Your task to perform on an android device: Show the shopping cart on ebay.com. Add macbook air to the cart on ebay.com, then select checkout. Image 0: 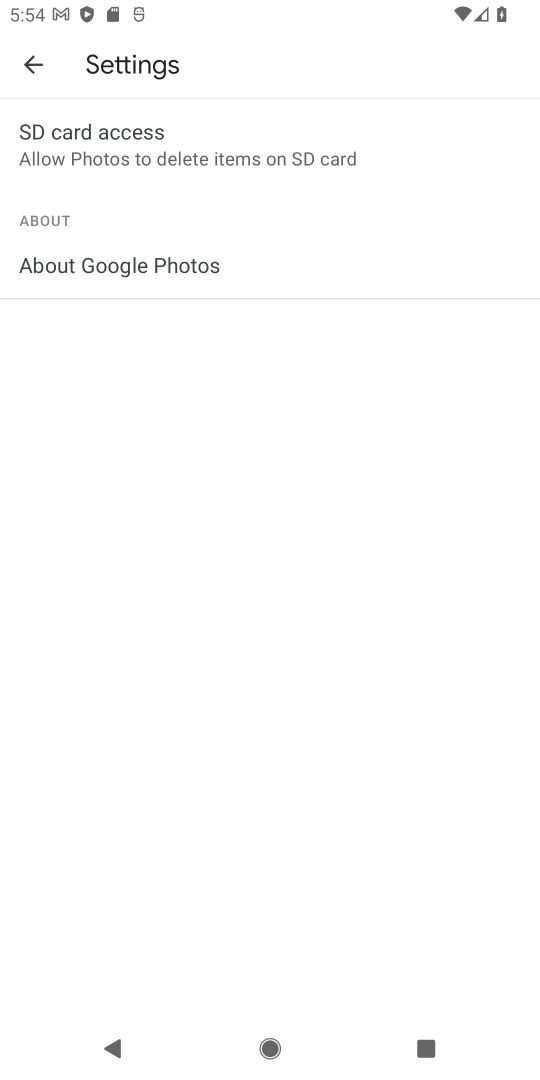
Step 0: press home button
Your task to perform on an android device: Show the shopping cart on ebay.com. Add macbook air to the cart on ebay.com, then select checkout. Image 1: 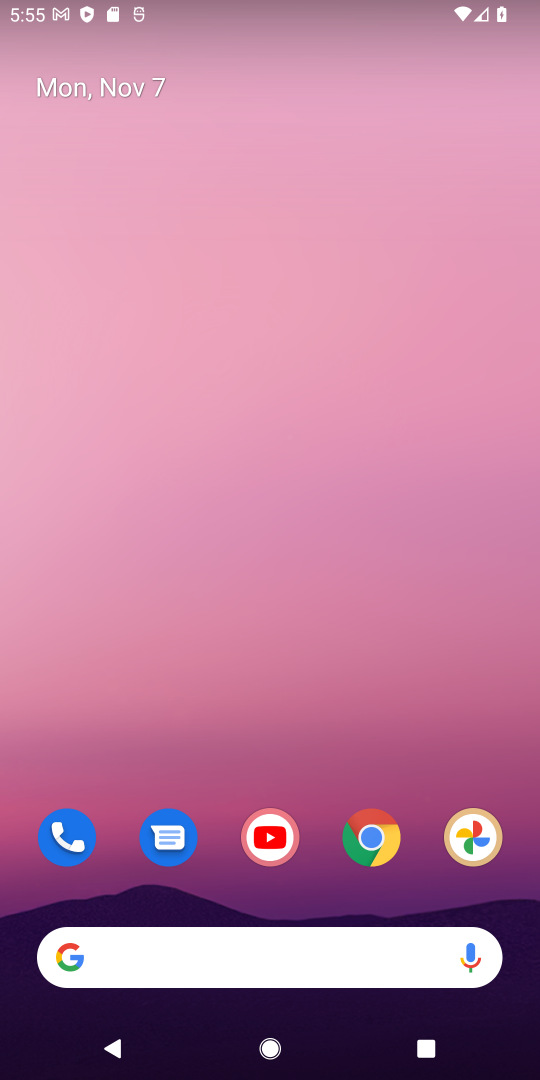
Step 1: click (383, 831)
Your task to perform on an android device: Show the shopping cart on ebay.com. Add macbook air to the cart on ebay.com, then select checkout. Image 2: 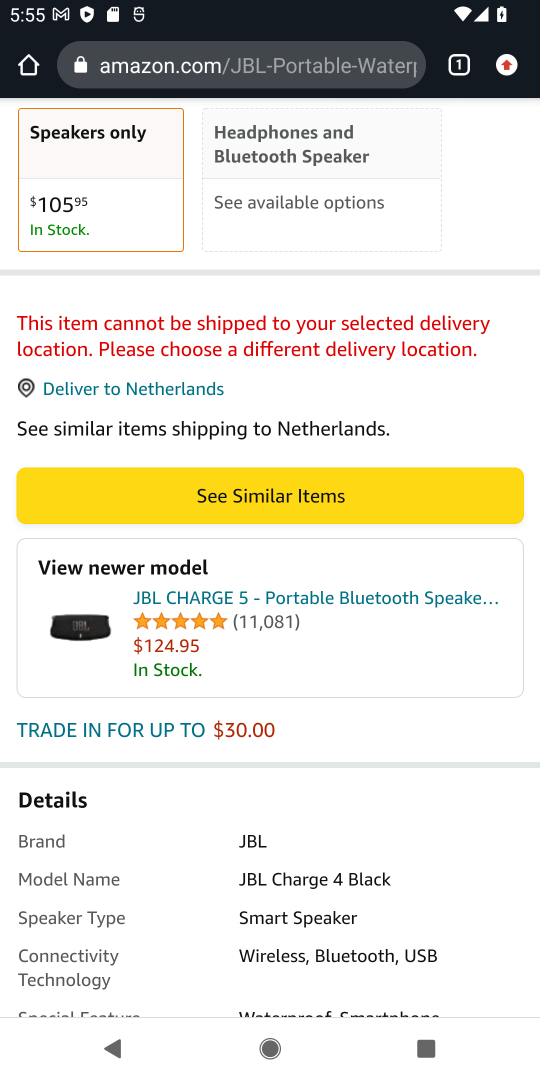
Step 2: click (193, 69)
Your task to perform on an android device: Show the shopping cart on ebay.com. Add macbook air to the cart on ebay.com, then select checkout. Image 3: 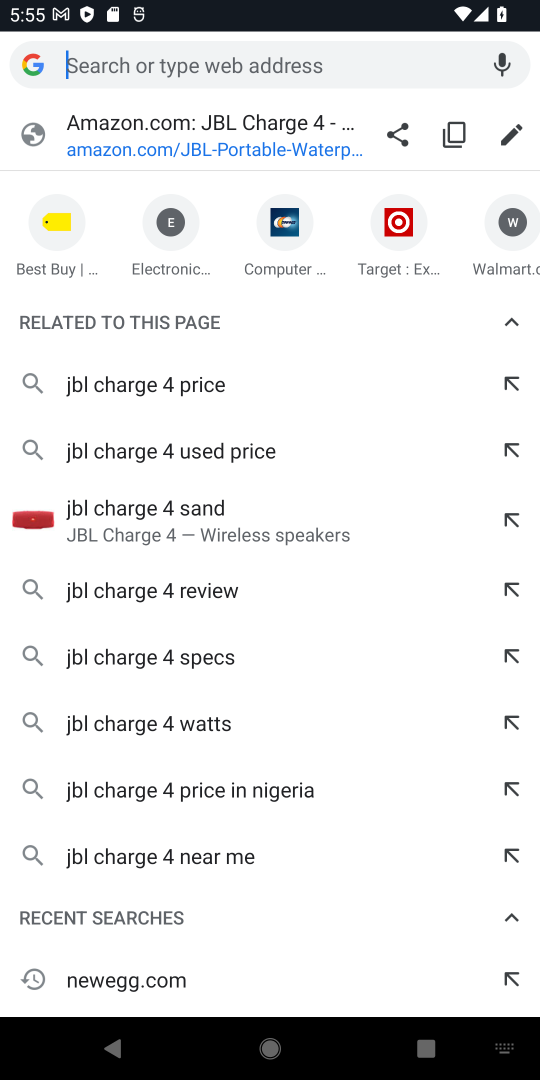
Step 3: type "ebay.com"
Your task to perform on an android device: Show the shopping cart on ebay.com. Add macbook air to the cart on ebay.com, then select checkout. Image 4: 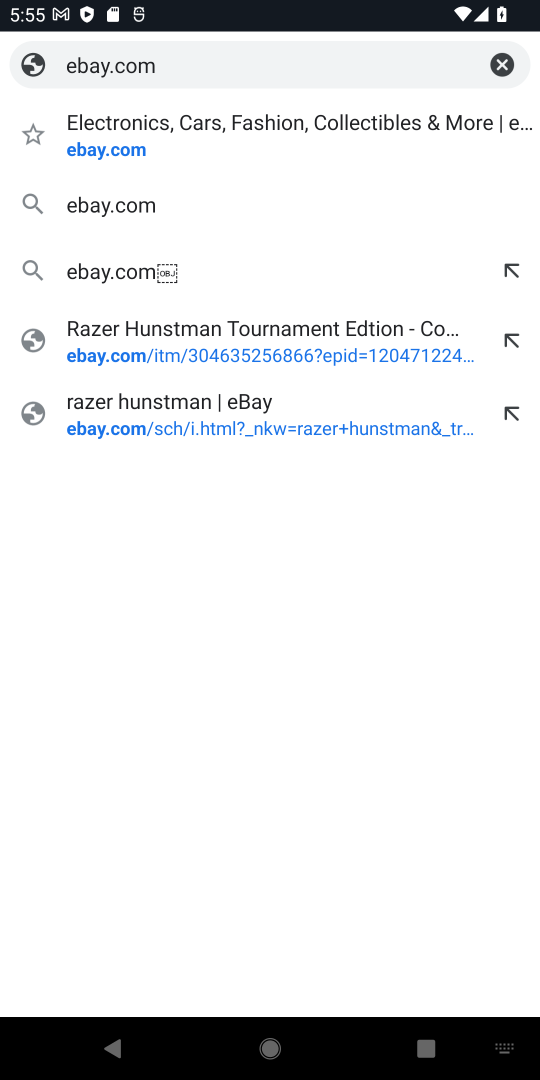
Step 4: press enter
Your task to perform on an android device: Show the shopping cart on ebay.com. Add macbook air to the cart on ebay.com, then select checkout. Image 5: 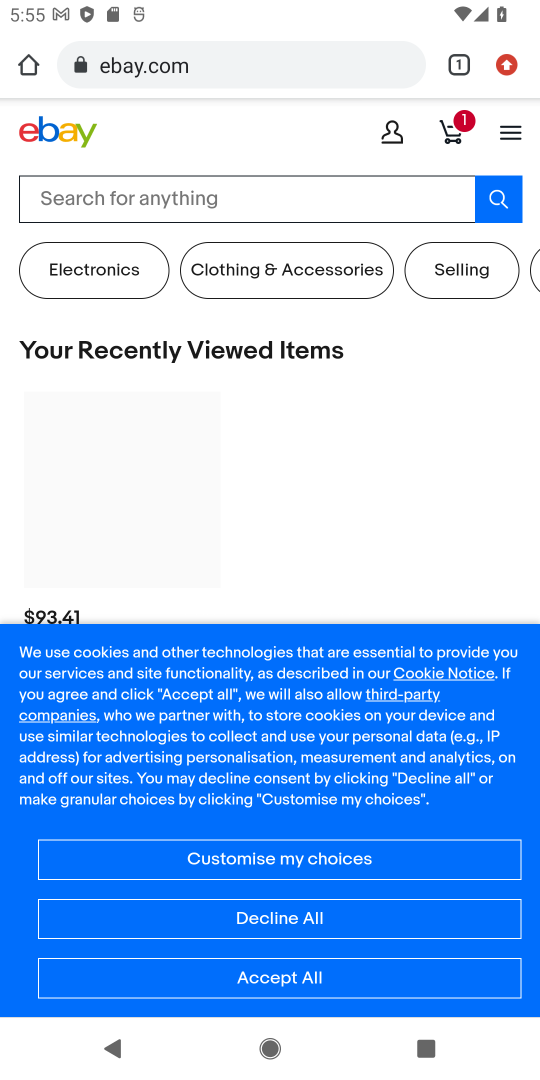
Step 5: click (459, 126)
Your task to perform on an android device: Show the shopping cart on ebay.com. Add macbook air to the cart on ebay.com, then select checkout. Image 6: 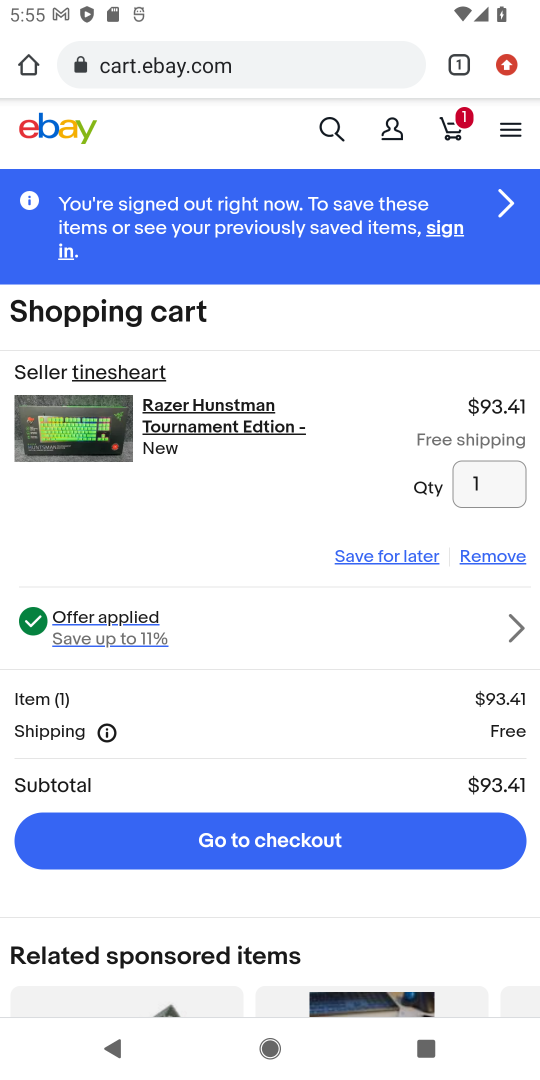
Step 6: click (329, 120)
Your task to perform on an android device: Show the shopping cart on ebay.com. Add macbook air to the cart on ebay.com, then select checkout. Image 7: 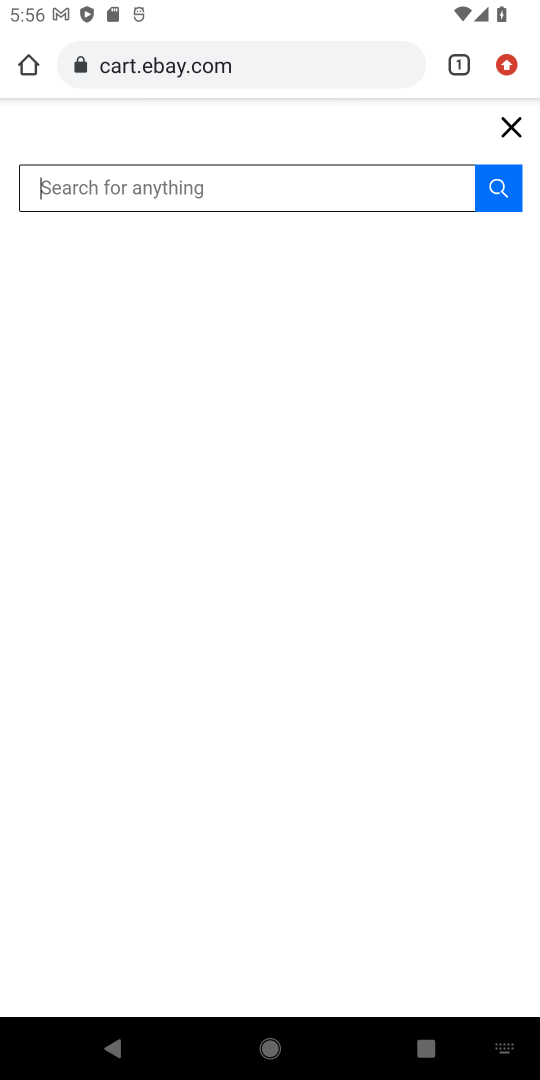
Step 7: type "macbook air"
Your task to perform on an android device: Show the shopping cart on ebay.com. Add macbook air to the cart on ebay.com, then select checkout. Image 8: 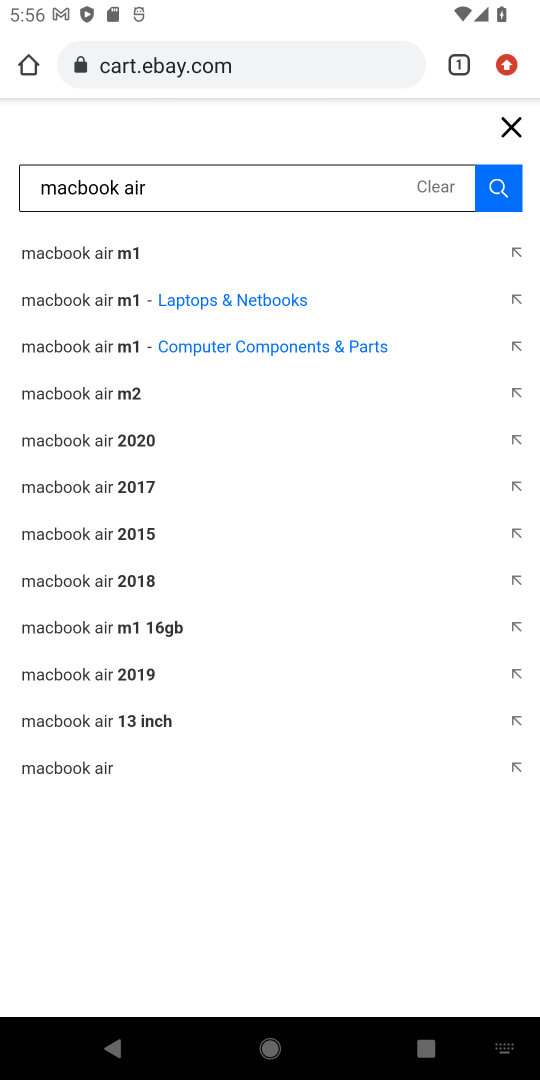
Step 8: press enter
Your task to perform on an android device: Show the shopping cart on ebay.com. Add macbook air to the cart on ebay.com, then select checkout. Image 9: 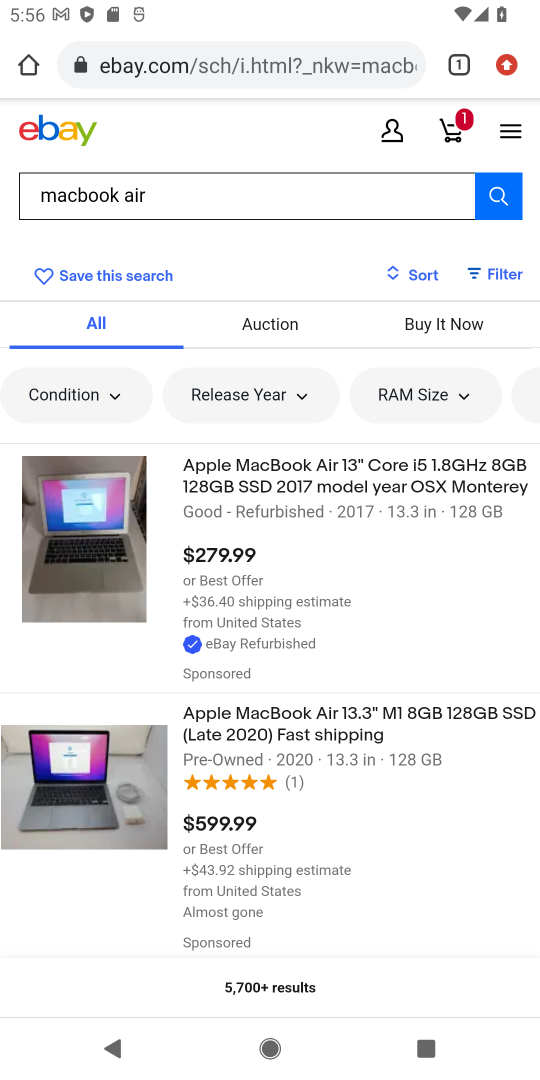
Step 9: click (333, 477)
Your task to perform on an android device: Show the shopping cart on ebay.com. Add macbook air to the cart on ebay.com, then select checkout. Image 10: 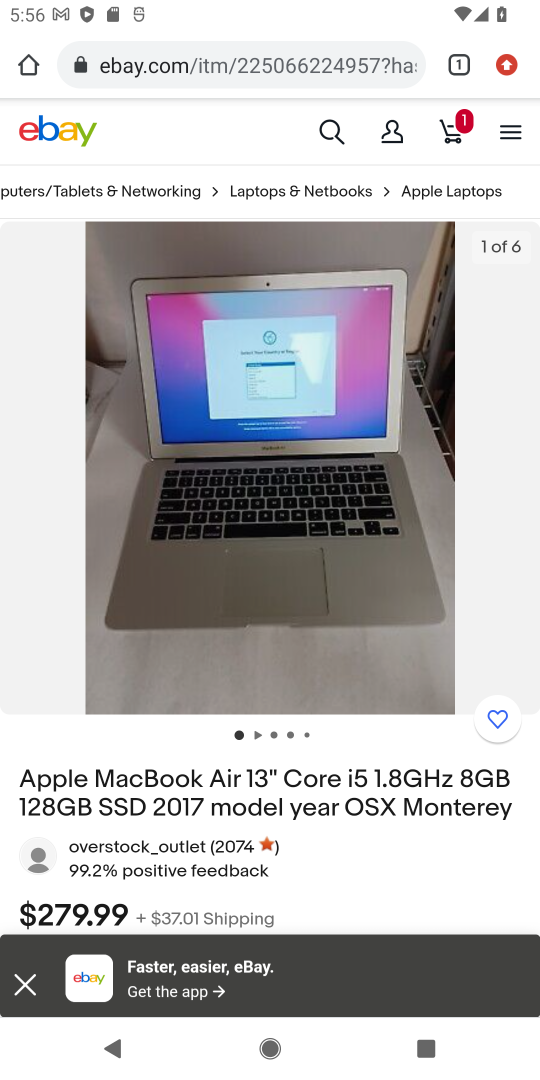
Step 10: drag from (358, 858) to (306, 274)
Your task to perform on an android device: Show the shopping cart on ebay.com. Add macbook air to the cart on ebay.com, then select checkout. Image 11: 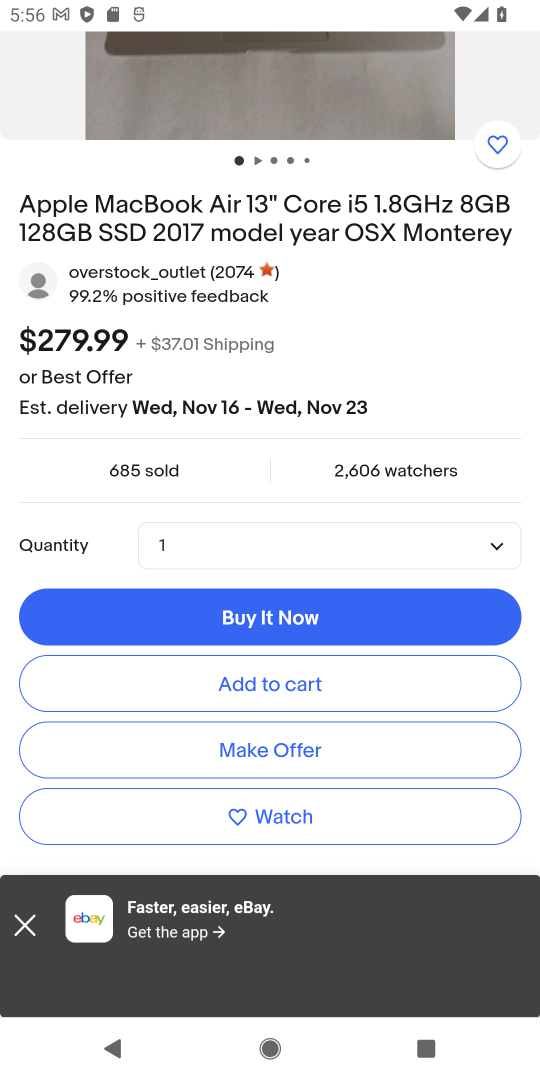
Step 11: click (288, 667)
Your task to perform on an android device: Show the shopping cart on ebay.com. Add macbook air to the cart on ebay.com, then select checkout. Image 12: 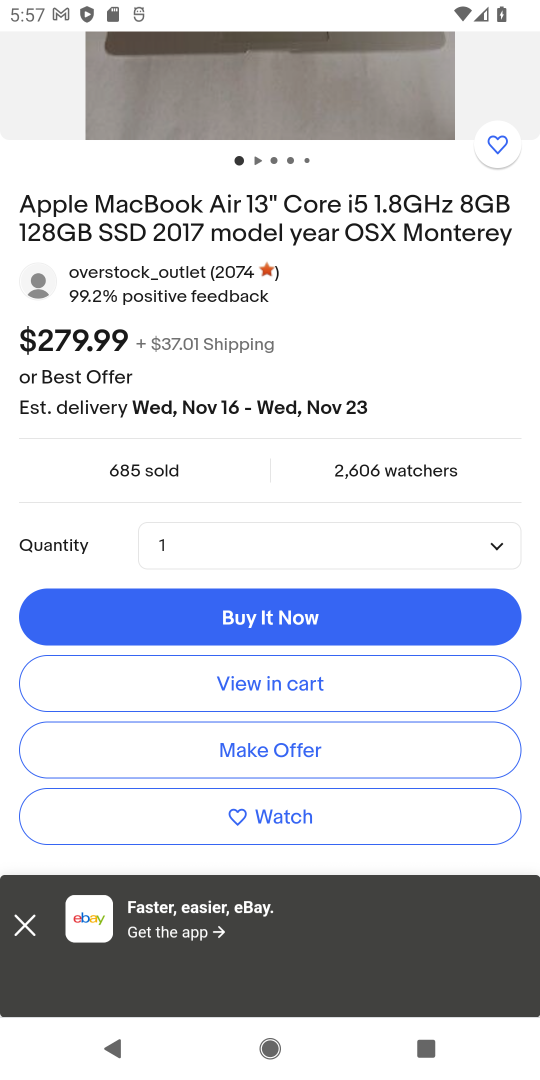
Step 12: drag from (444, 224) to (333, 898)
Your task to perform on an android device: Show the shopping cart on ebay.com. Add macbook air to the cart on ebay.com, then select checkout. Image 13: 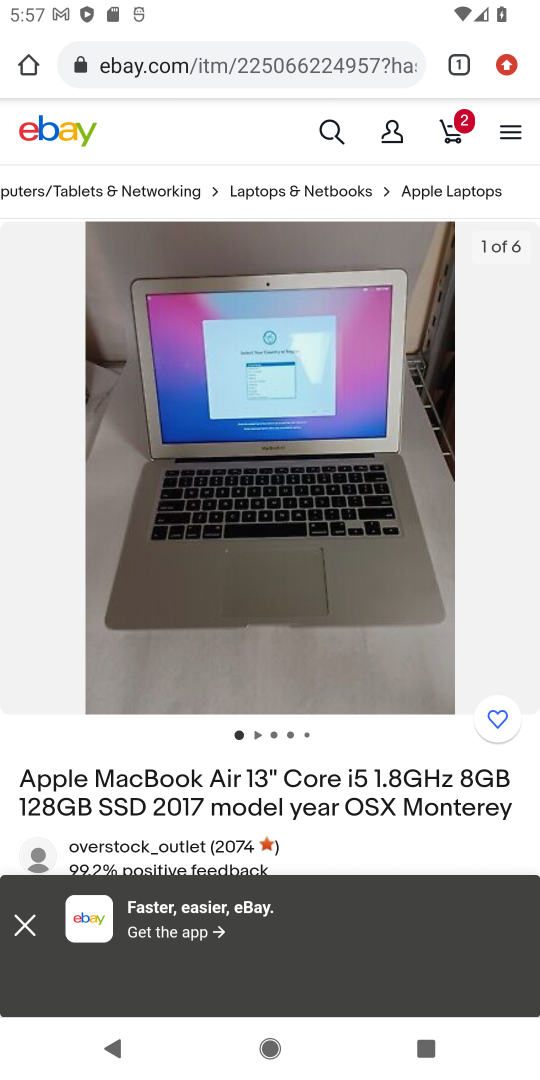
Step 13: click (446, 142)
Your task to perform on an android device: Show the shopping cart on ebay.com. Add macbook air to the cart on ebay.com, then select checkout. Image 14: 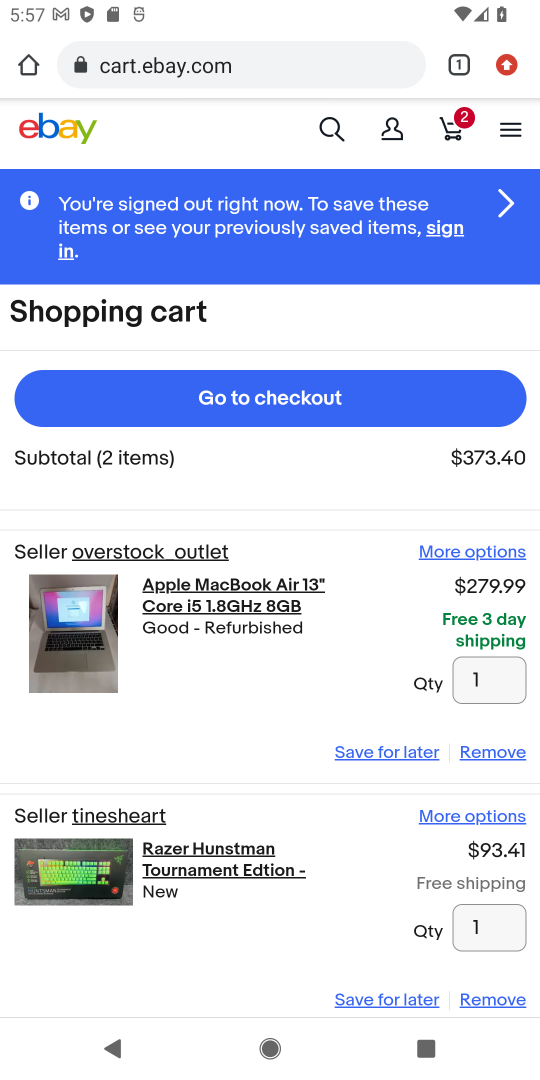
Step 14: click (312, 401)
Your task to perform on an android device: Show the shopping cart on ebay.com. Add macbook air to the cart on ebay.com, then select checkout. Image 15: 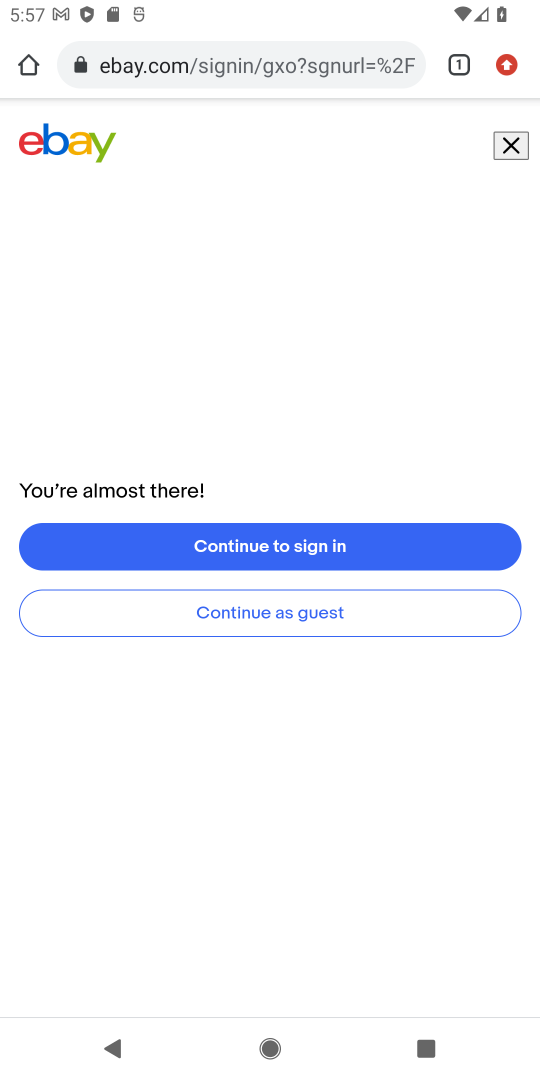
Step 15: task complete